Your task to perform on an android device: change timer sound Image 0: 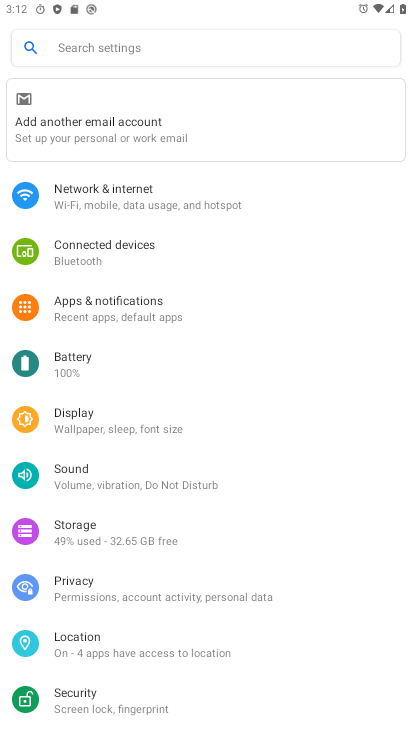
Step 0: click (72, 471)
Your task to perform on an android device: change timer sound Image 1: 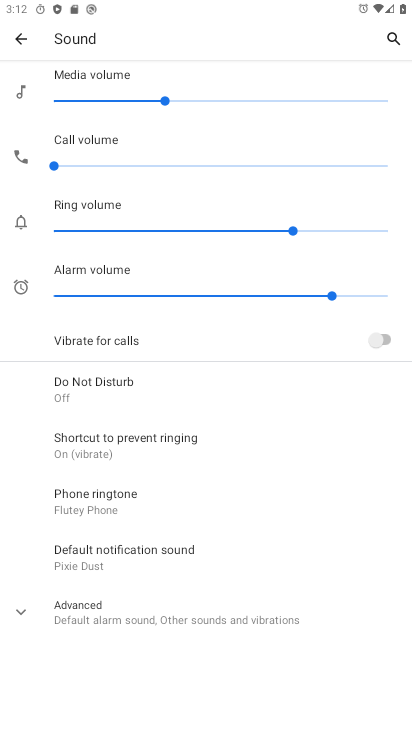
Step 1: task complete